Your task to perform on an android device: turn off location history Image 0: 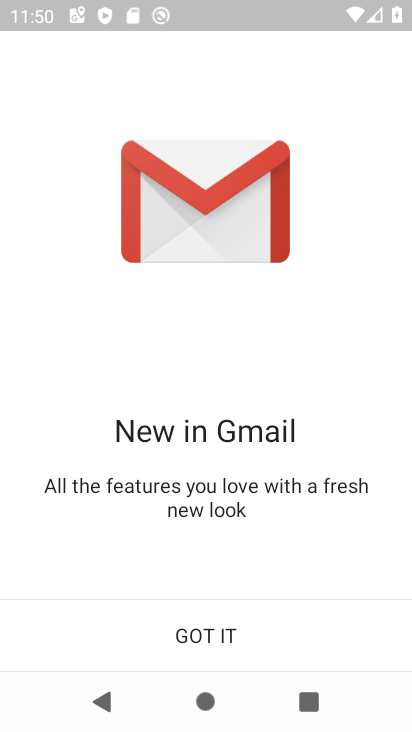
Step 0: press home button
Your task to perform on an android device: turn off location history Image 1: 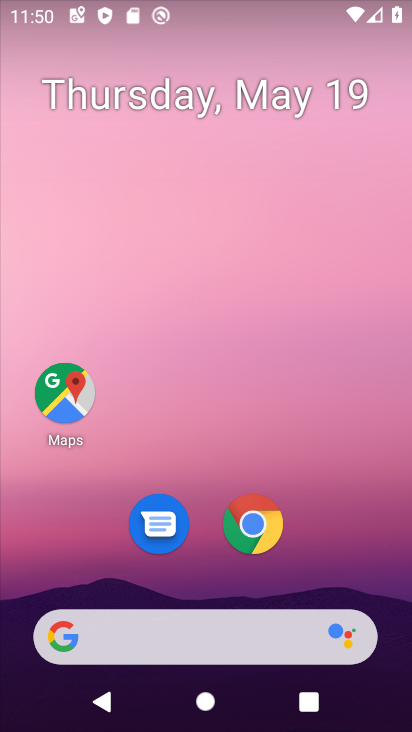
Step 1: drag from (222, 440) to (239, 43)
Your task to perform on an android device: turn off location history Image 2: 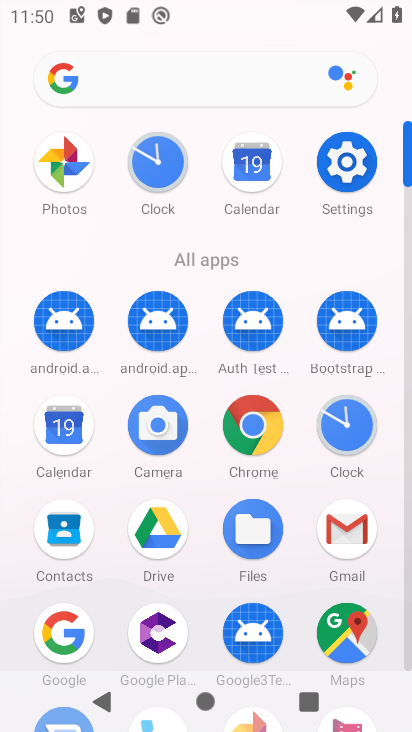
Step 2: click (336, 169)
Your task to perform on an android device: turn off location history Image 3: 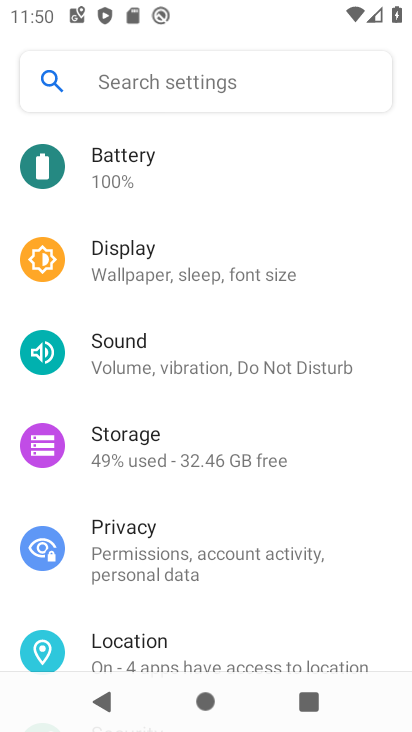
Step 3: click (209, 642)
Your task to perform on an android device: turn off location history Image 4: 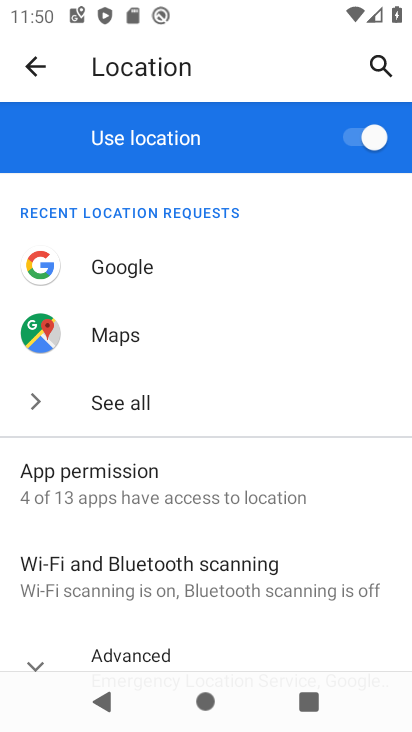
Step 4: drag from (255, 509) to (265, 264)
Your task to perform on an android device: turn off location history Image 5: 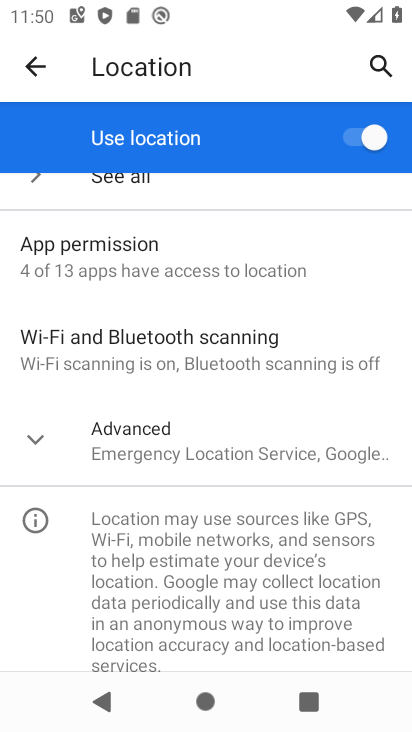
Step 5: click (37, 439)
Your task to perform on an android device: turn off location history Image 6: 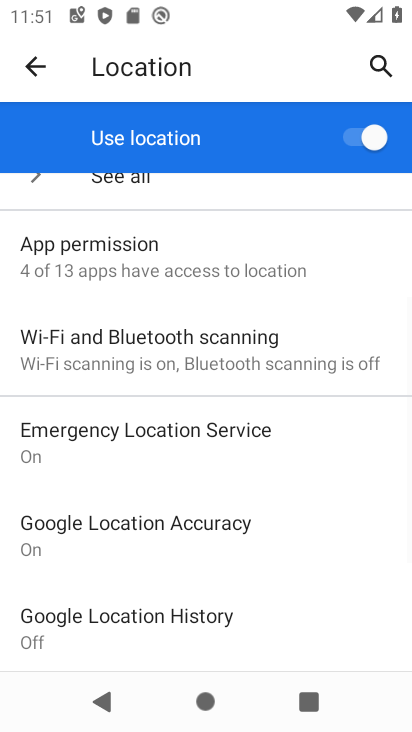
Step 6: task complete